Your task to perform on an android device: turn pop-ups on in chrome Image 0: 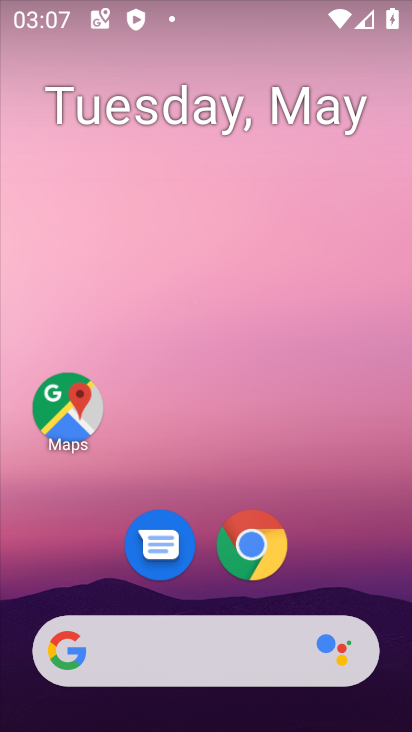
Step 0: click (257, 545)
Your task to perform on an android device: turn pop-ups on in chrome Image 1: 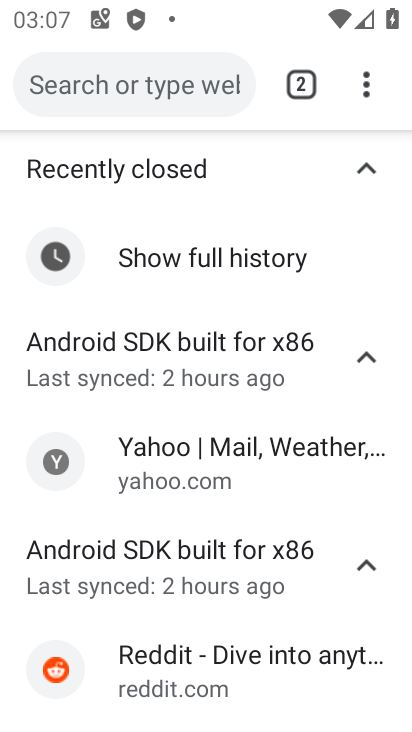
Step 1: click (365, 92)
Your task to perform on an android device: turn pop-ups on in chrome Image 2: 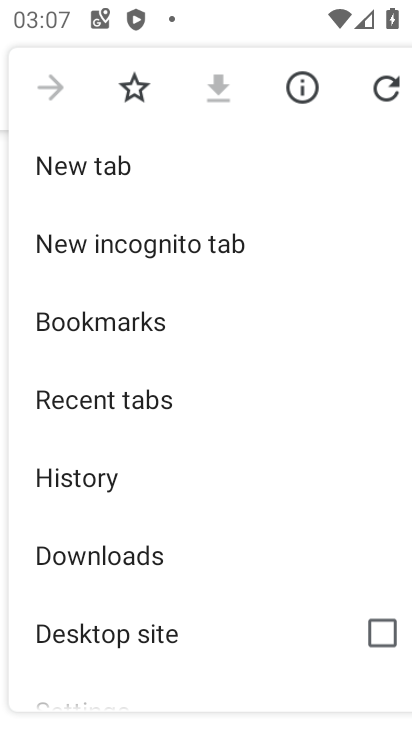
Step 2: drag from (242, 628) to (259, 230)
Your task to perform on an android device: turn pop-ups on in chrome Image 3: 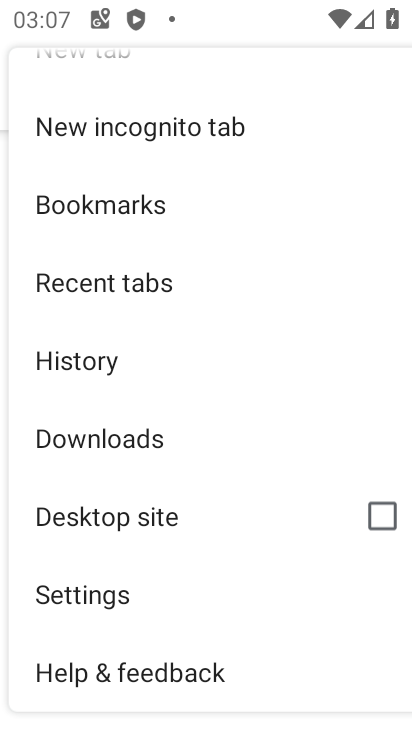
Step 3: click (106, 593)
Your task to perform on an android device: turn pop-ups on in chrome Image 4: 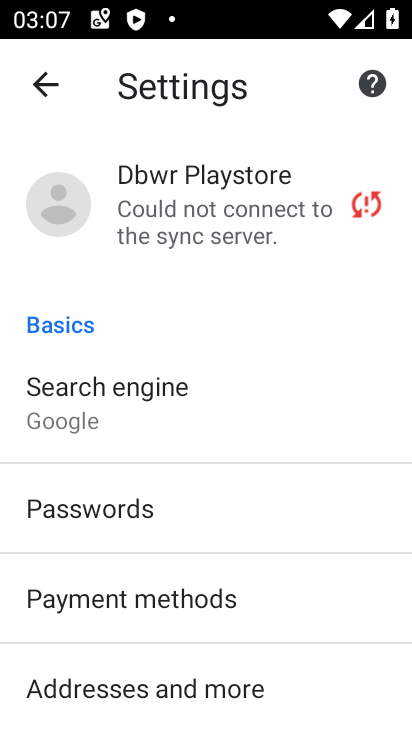
Step 4: drag from (266, 654) to (211, 211)
Your task to perform on an android device: turn pop-ups on in chrome Image 5: 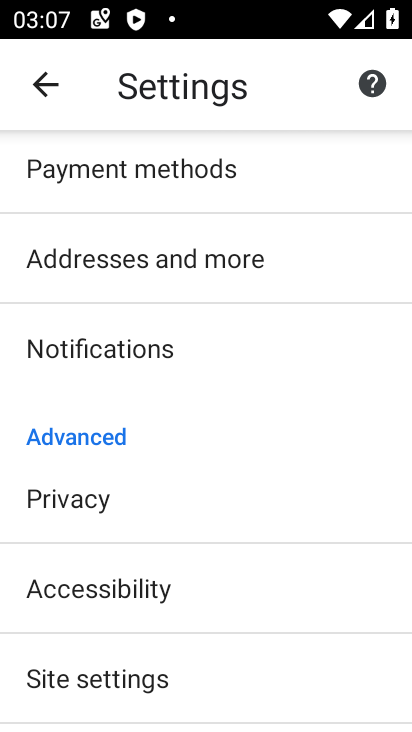
Step 5: drag from (219, 666) to (250, 312)
Your task to perform on an android device: turn pop-ups on in chrome Image 6: 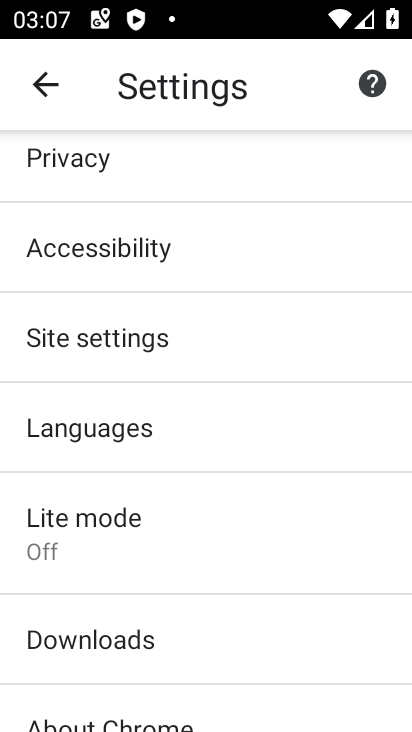
Step 6: click (77, 330)
Your task to perform on an android device: turn pop-ups on in chrome Image 7: 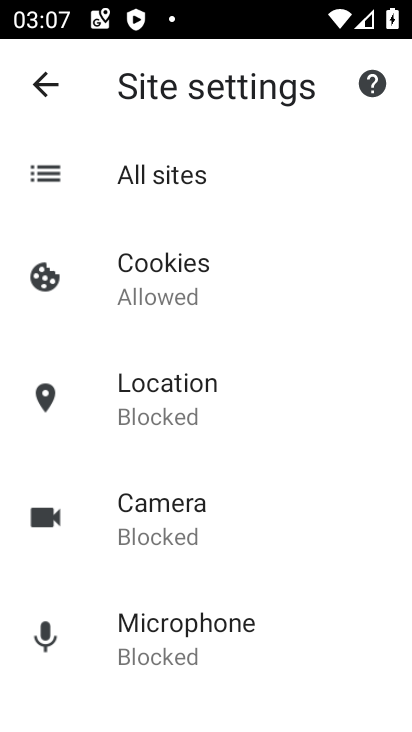
Step 7: drag from (286, 651) to (265, 321)
Your task to perform on an android device: turn pop-ups on in chrome Image 8: 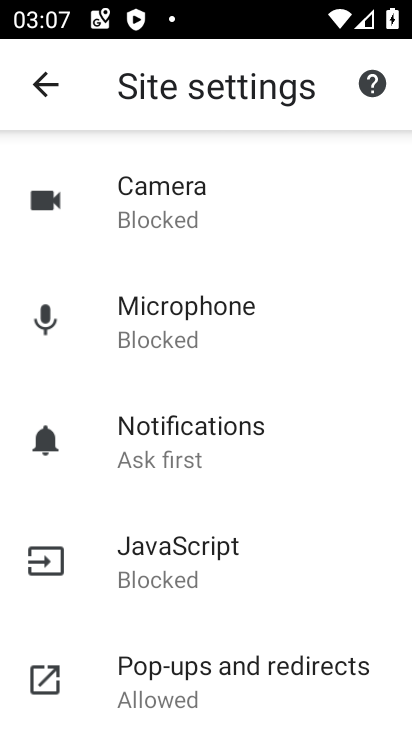
Step 8: click (179, 676)
Your task to perform on an android device: turn pop-ups on in chrome Image 9: 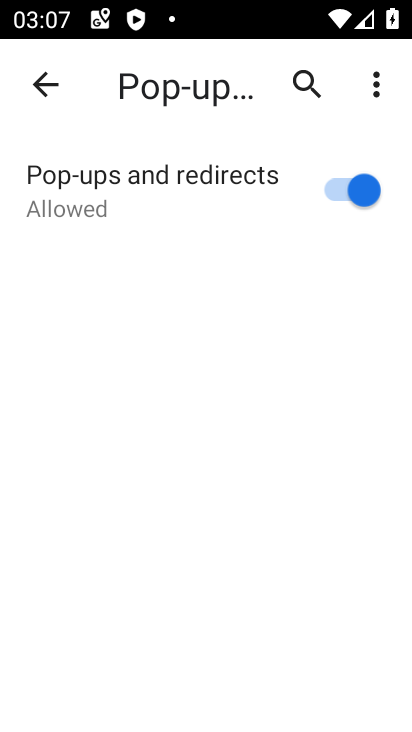
Step 9: task complete